Your task to perform on an android device: Search for Mexican restaurants on Maps Image 0: 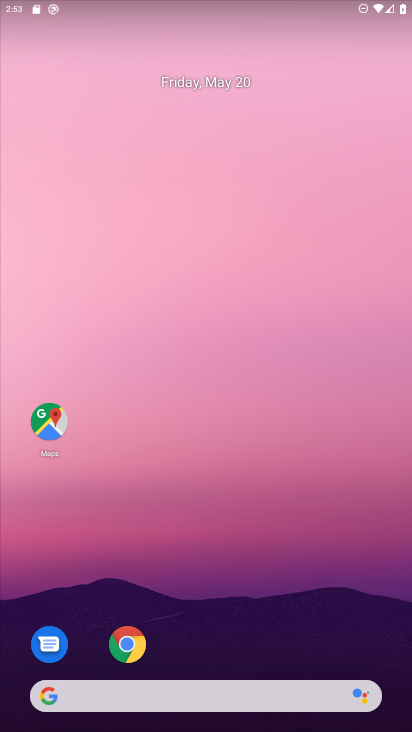
Step 0: click (48, 423)
Your task to perform on an android device: Search for Mexican restaurants on Maps Image 1: 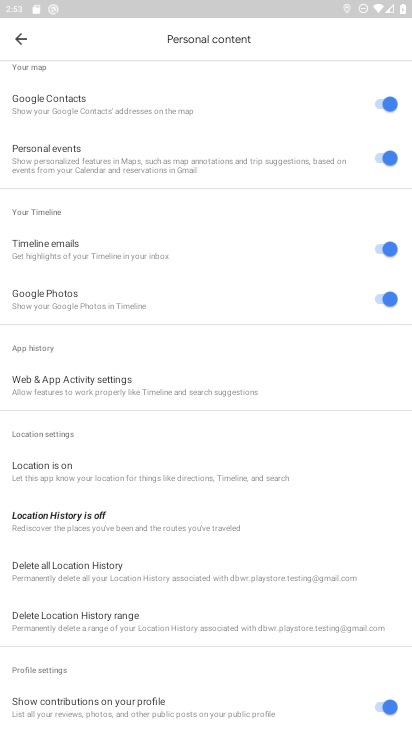
Step 1: click (22, 41)
Your task to perform on an android device: Search for Mexican restaurants on Maps Image 2: 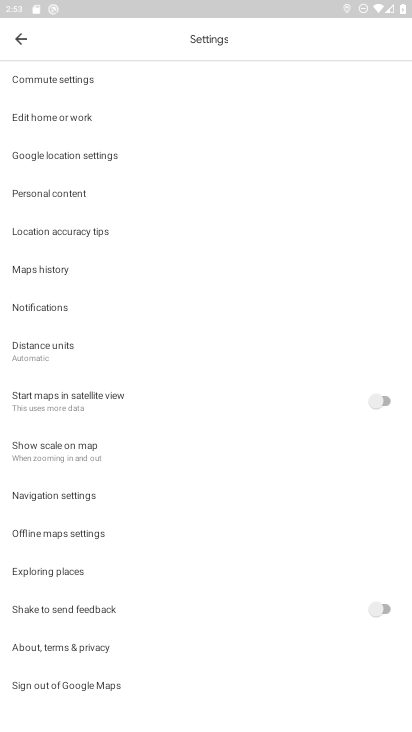
Step 2: click (22, 41)
Your task to perform on an android device: Search for Mexican restaurants on Maps Image 3: 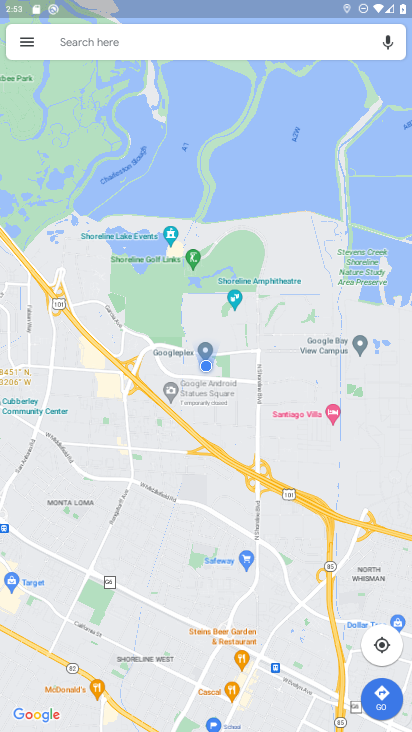
Step 3: click (71, 45)
Your task to perform on an android device: Search for Mexican restaurants on Maps Image 4: 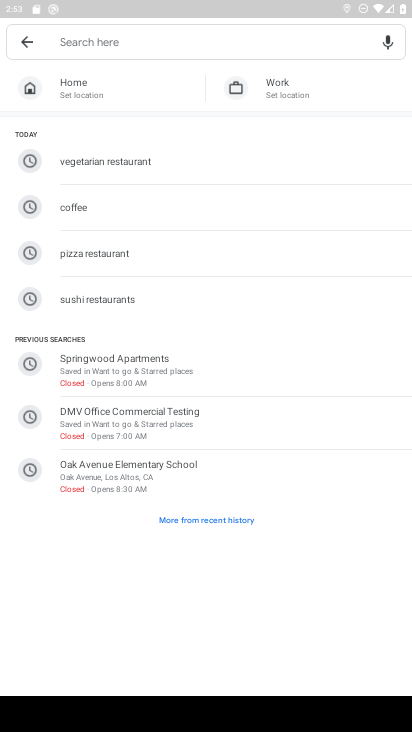
Step 4: type "Mexican restaurants"
Your task to perform on an android device: Search for Mexican restaurants on Maps Image 5: 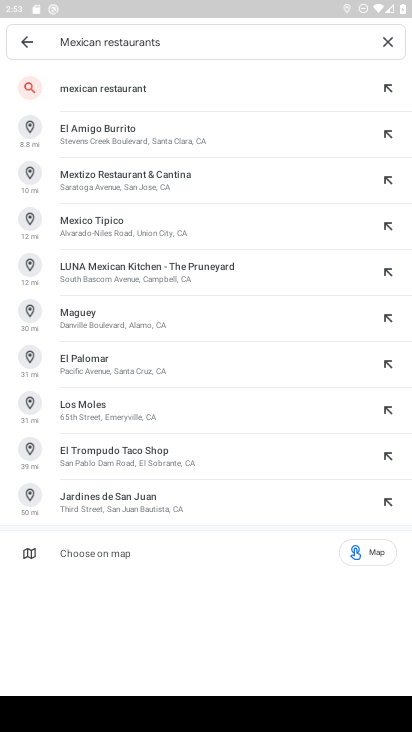
Step 5: click (111, 90)
Your task to perform on an android device: Search for Mexican restaurants on Maps Image 6: 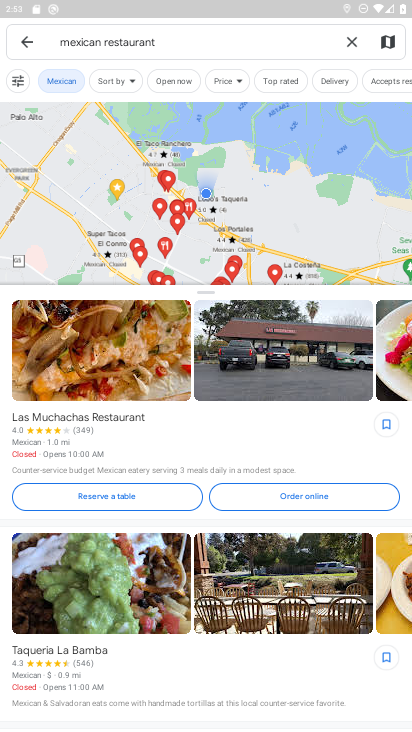
Step 6: task complete